Your task to perform on an android device: turn smart compose on in the gmail app Image 0: 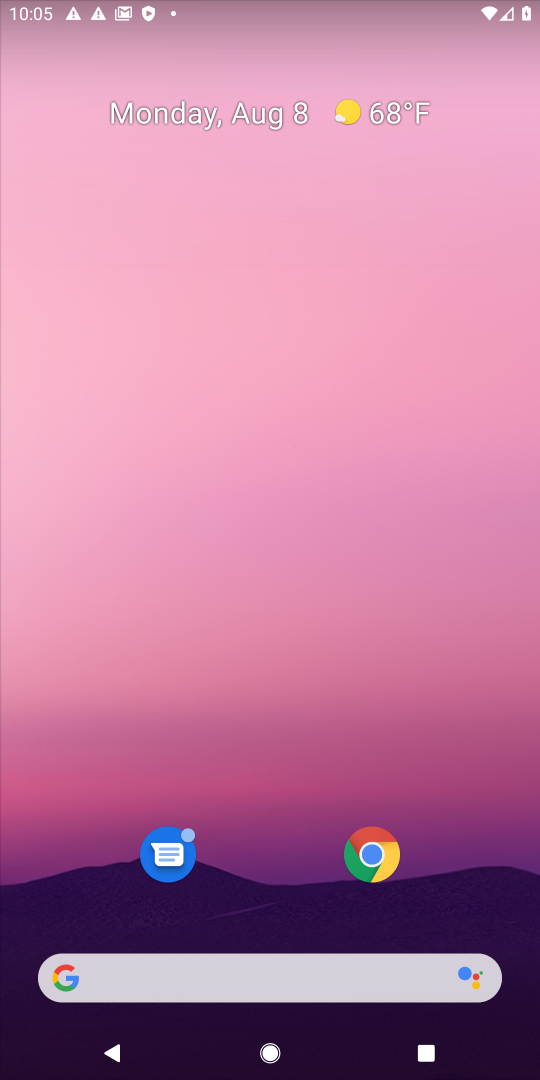
Step 0: drag from (265, 804) to (261, 196)
Your task to perform on an android device: turn smart compose on in the gmail app Image 1: 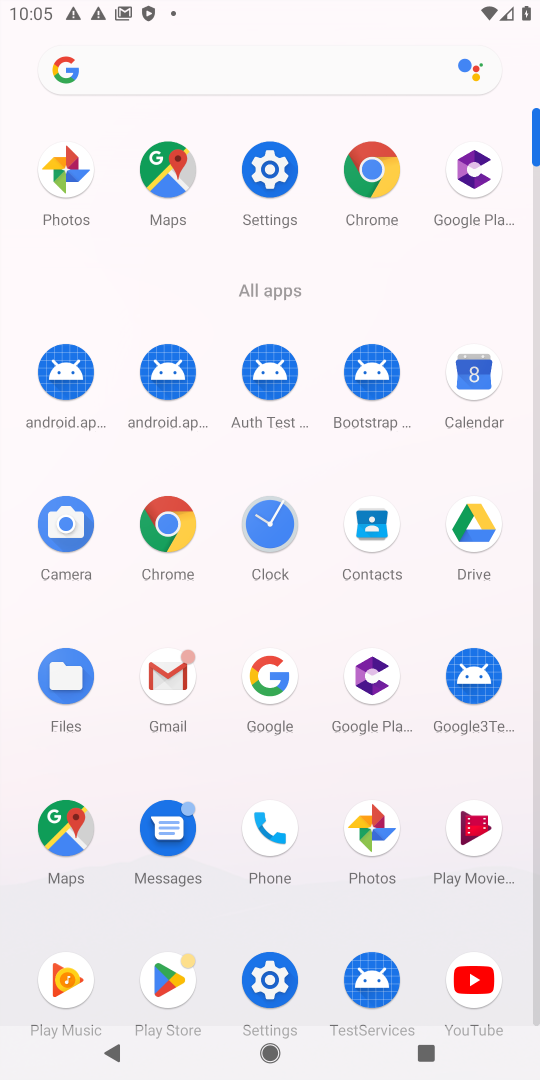
Step 1: click (177, 683)
Your task to perform on an android device: turn smart compose on in the gmail app Image 2: 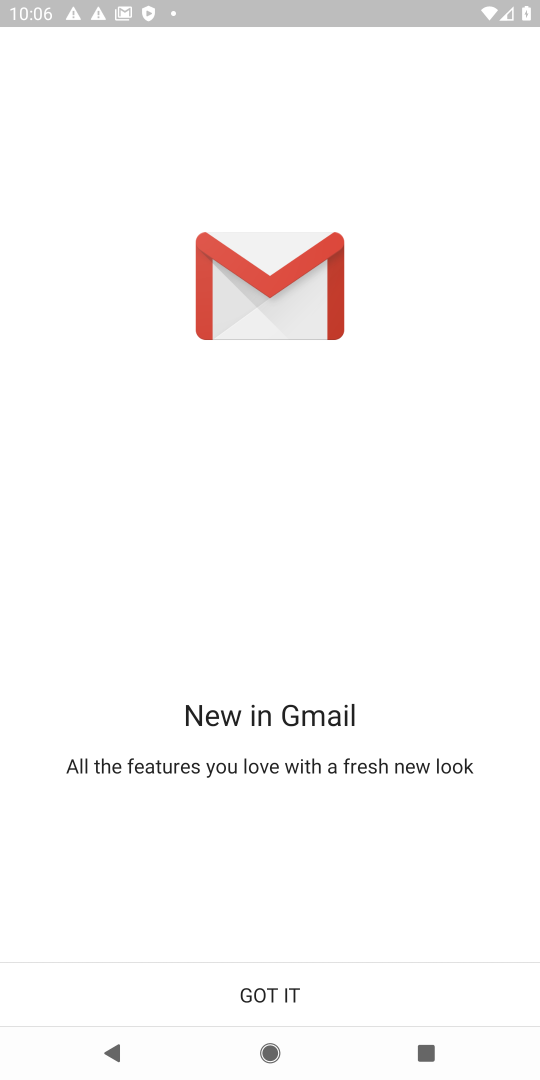
Step 2: click (279, 993)
Your task to perform on an android device: turn smart compose on in the gmail app Image 3: 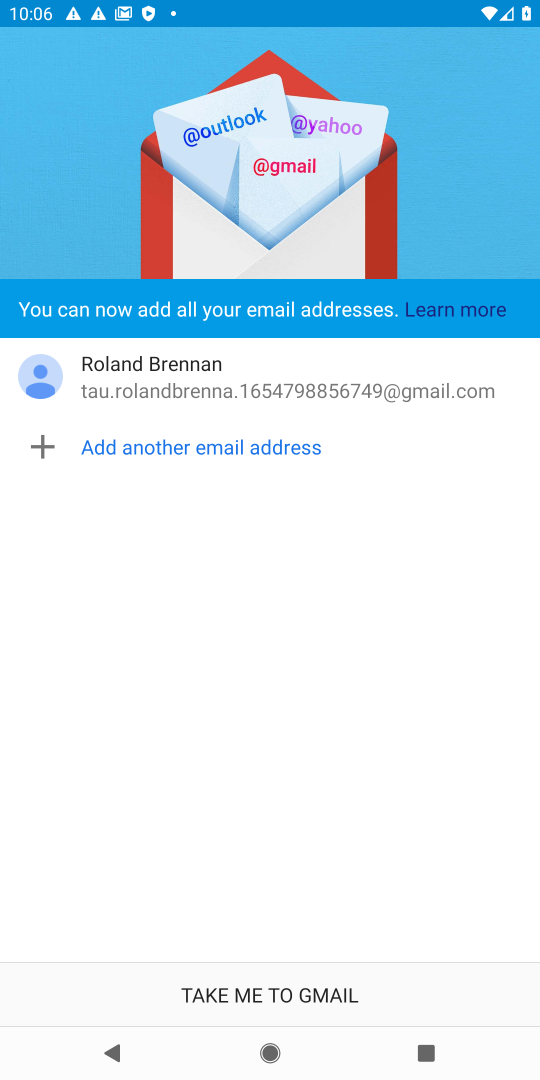
Step 3: click (279, 993)
Your task to perform on an android device: turn smart compose on in the gmail app Image 4: 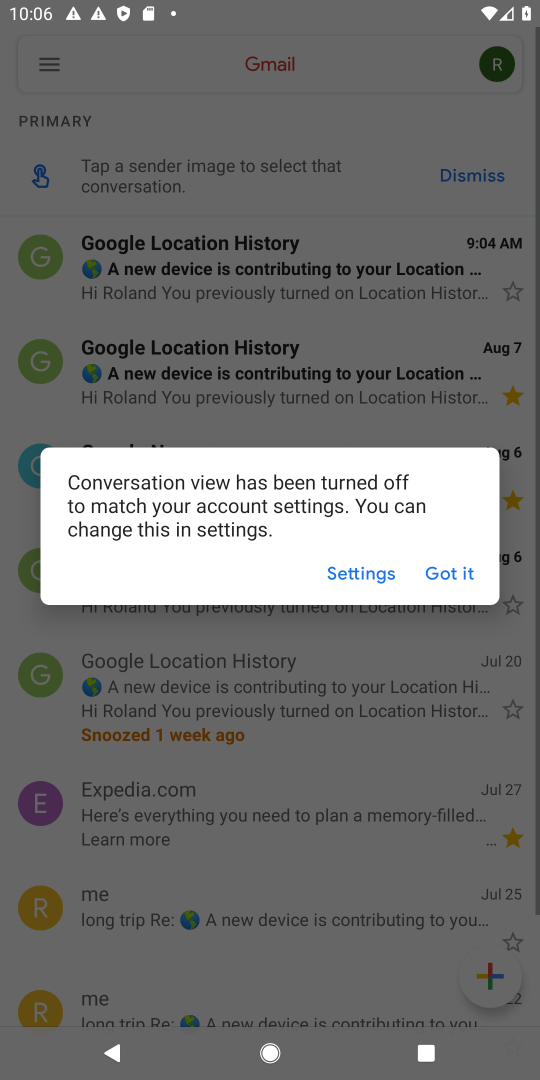
Step 4: task complete